Your task to perform on an android device: empty trash in the gmail app Image 0: 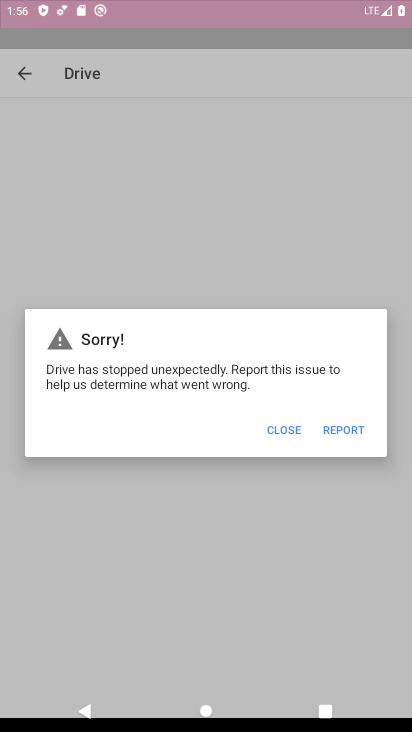
Step 0: drag from (210, 560) to (194, 135)
Your task to perform on an android device: empty trash in the gmail app Image 1: 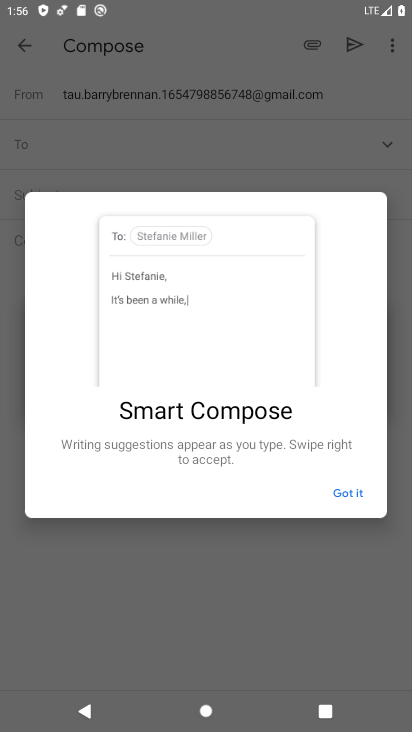
Step 1: press home button
Your task to perform on an android device: empty trash in the gmail app Image 2: 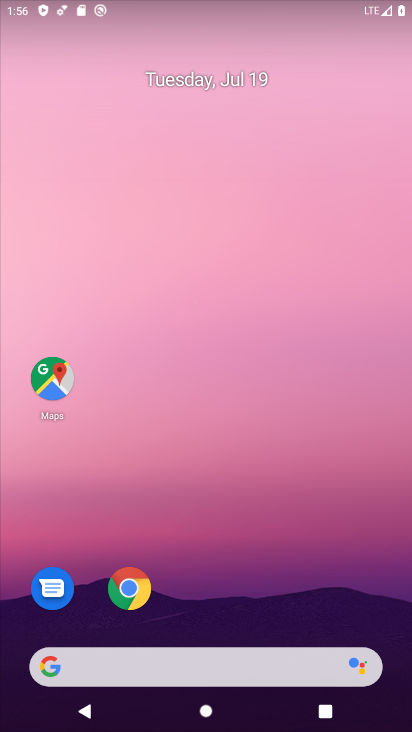
Step 2: drag from (240, 544) to (176, 33)
Your task to perform on an android device: empty trash in the gmail app Image 3: 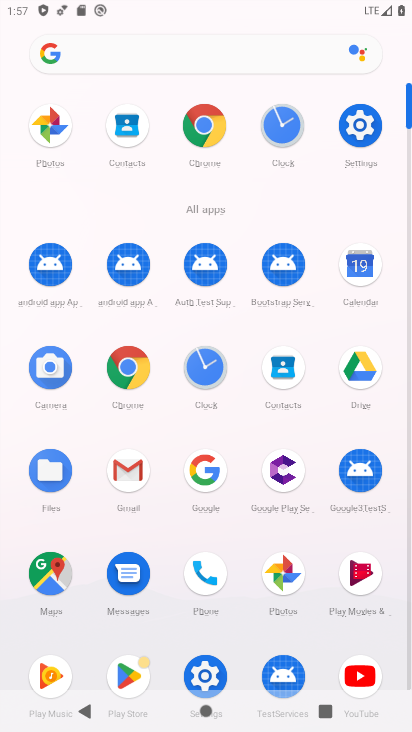
Step 3: click (121, 477)
Your task to perform on an android device: empty trash in the gmail app Image 4: 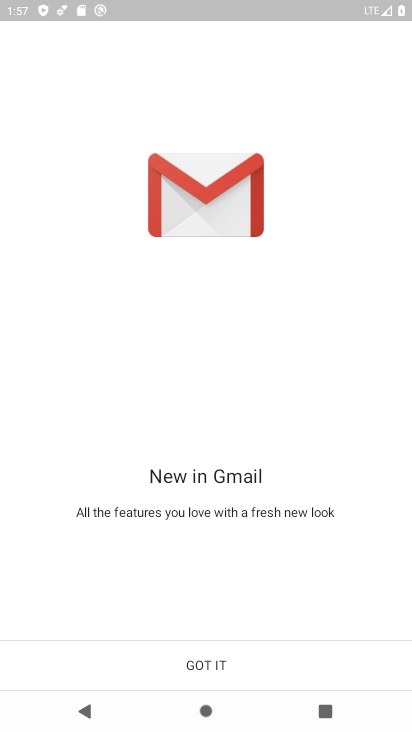
Step 4: click (203, 670)
Your task to perform on an android device: empty trash in the gmail app Image 5: 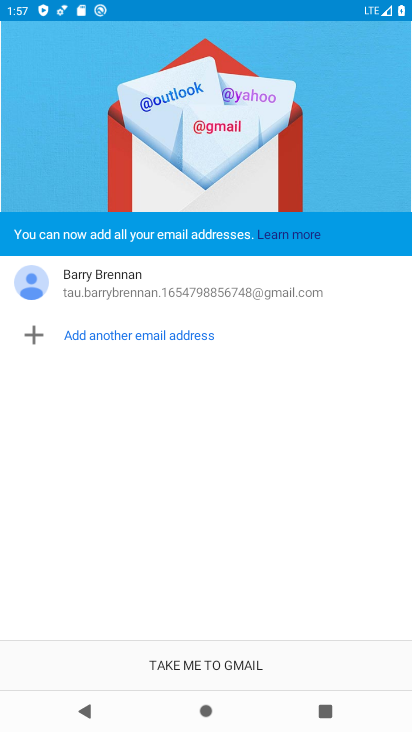
Step 5: click (203, 668)
Your task to perform on an android device: empty trash in the gmail app Image 6: 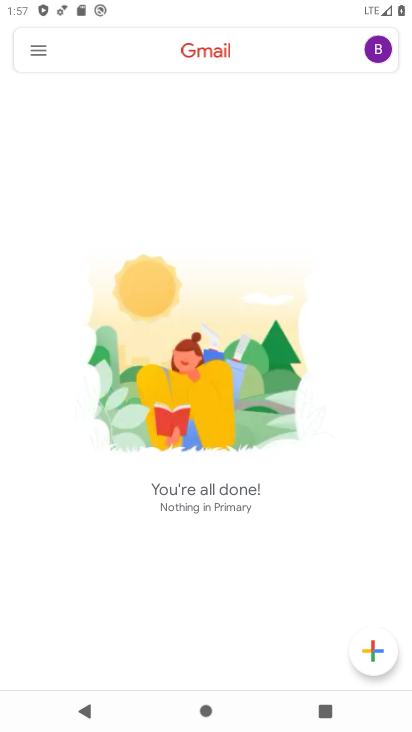
Step 6: click (29, 49)
Your task to perform on an android device: empty trash in the gmail app Image 7: 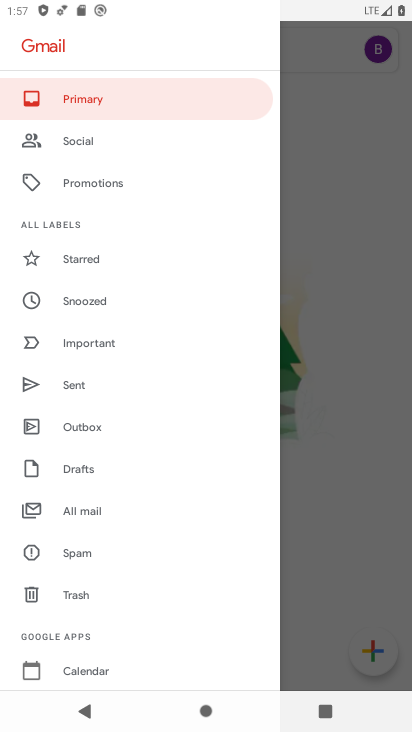
Step 7: click (81, 590)
Your task to perform on an android device: empty trash in the gmail app Image 8: 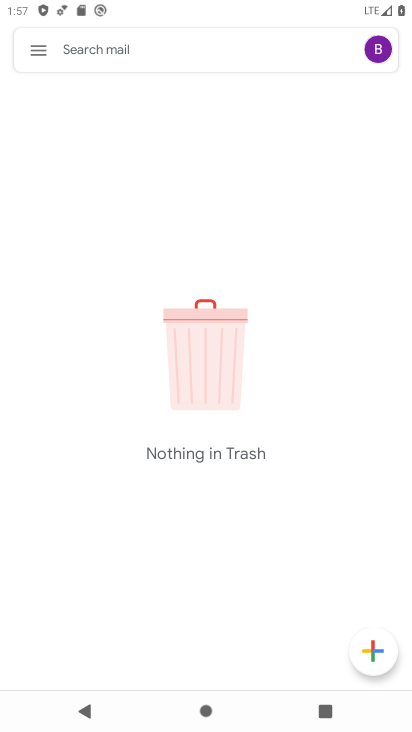
Step 8: task complete